Your task to perform on an android device: check google app version Image 0: 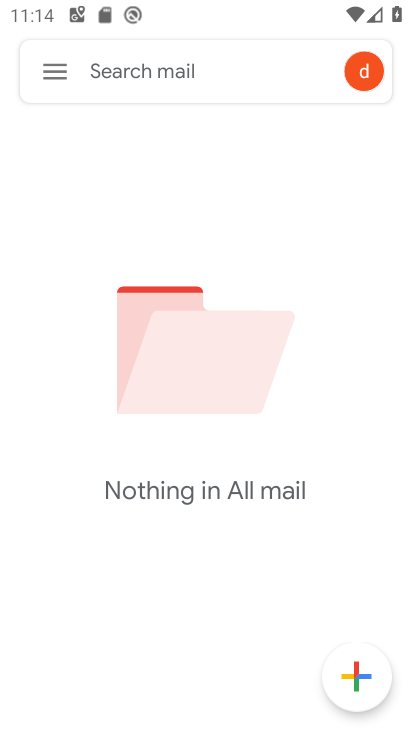
Step 0: press home button
Your task to perform on an android device: check google app version Image 1: 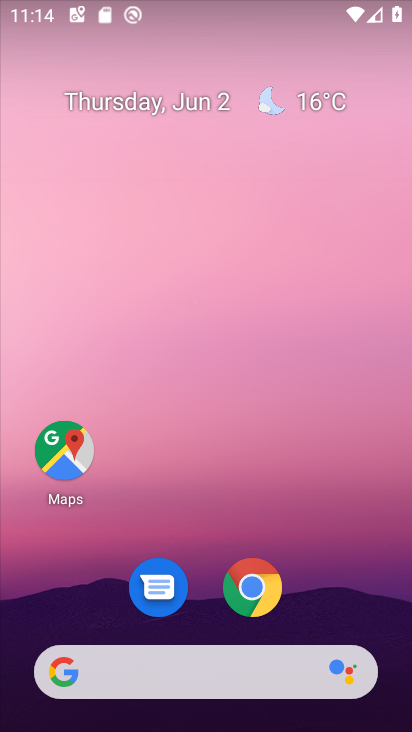
Step 1: click (237, 674)
Your task to perform on an android device: check google app version Image 2: 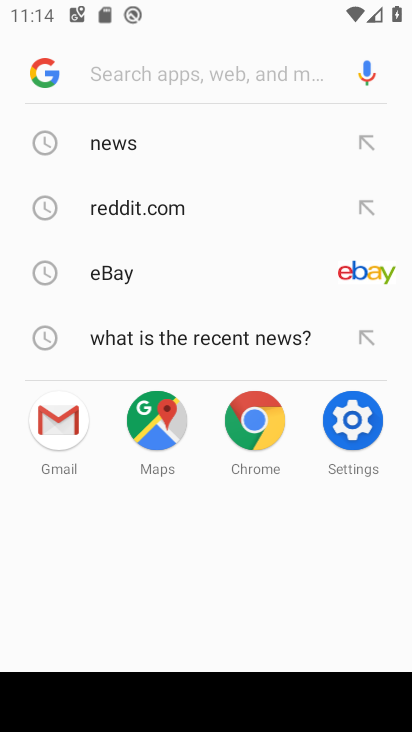
Step 2: click (37, 66)
Your task to perform on an android device: check google app version Image 3: 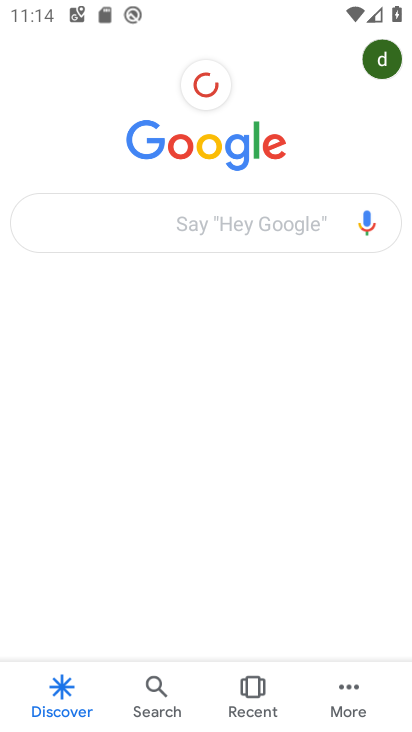
Step 3: click (343, 684)
Your task to perform on an android device: check google app version Image 4: 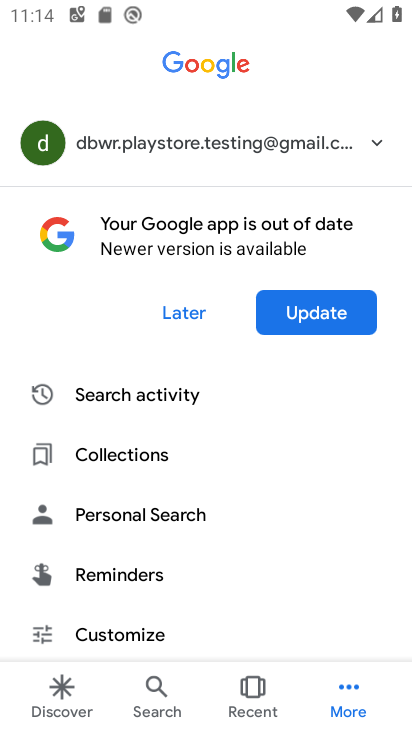
Step 4: click (195, 312)
Your task to perform on an android device: check google app version Image 5: 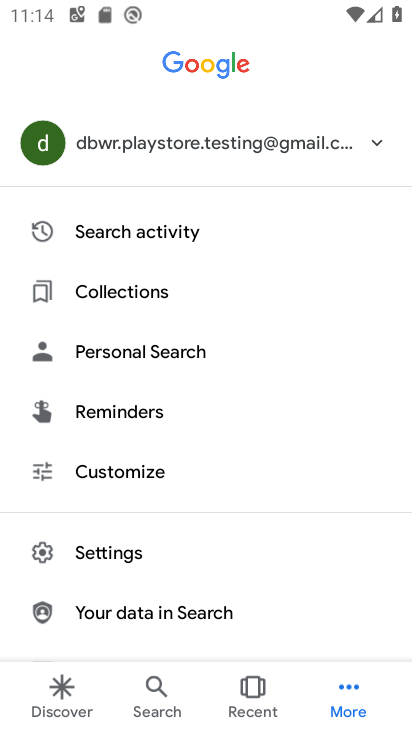
Step 5: click (126, 537)
Your task to perform on an android device: check google app version Image 6: 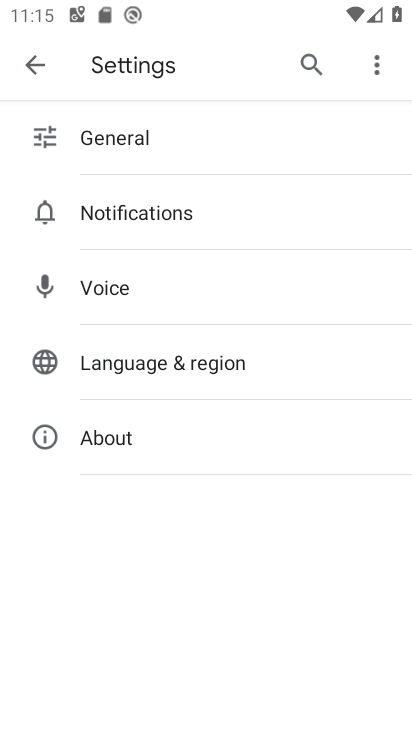
Step 6: click (98, 427)
Your task to perform on an android device: check google app version Image 7: 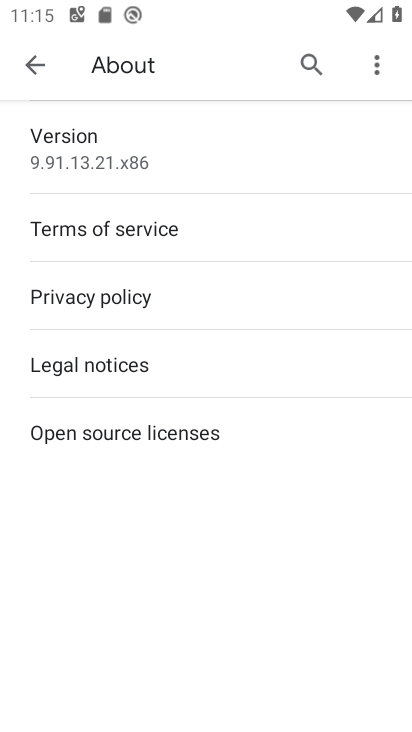
Step 7: task complete